Your task to perform on an android device: turn off smart reply in the gmail app Image 0: 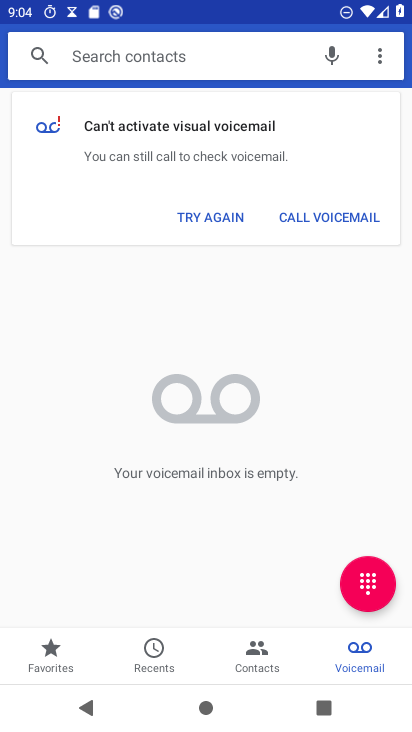
Step 0: press home button
Your task to perform on an android device: turn off smart reply in the gmail app Image 1: 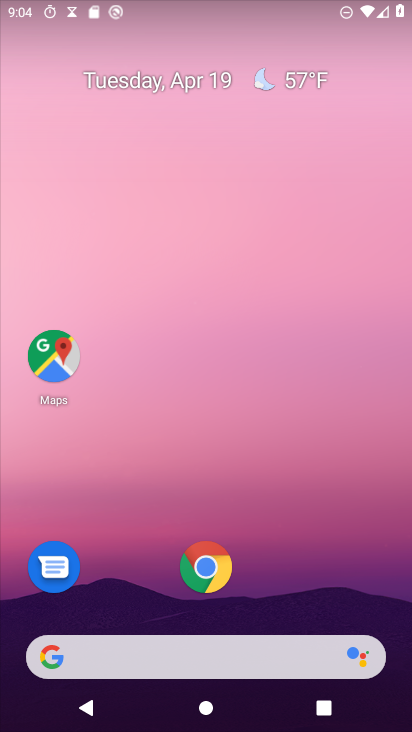
Step 1: drag from (339, 300) to (408, 19)
Your task to perform on an android device: turn off smart reply in the gmail app Image 2: 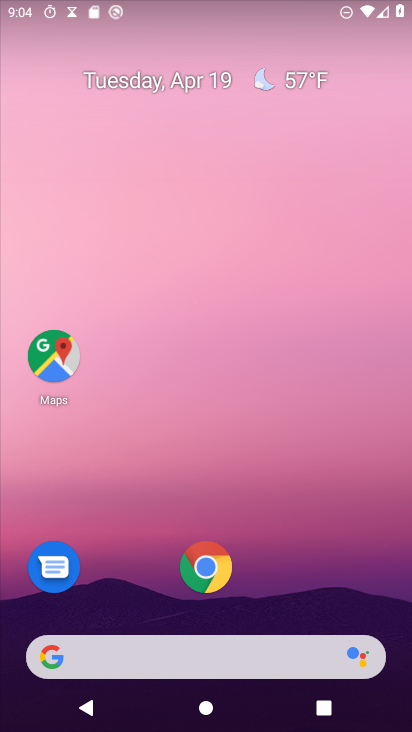
Step 2: drag from (401, 486) to (342, 24)
Your task to perform on an android device: turn off smart reply in the gmail app Image 3: 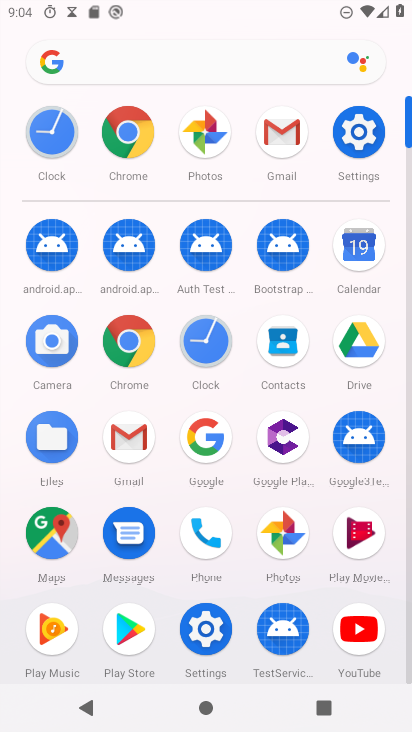
Step 3: click (271, 147)
Your task to perform on an android device: turn off smart reply in the gmail app Image 4: 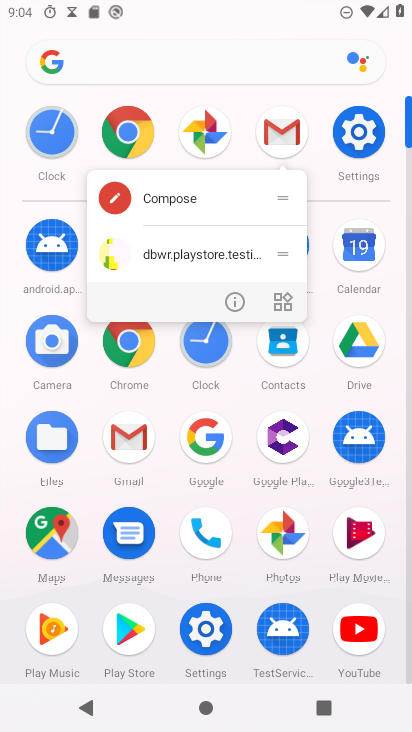
Step 4: click (271, 144)
Your task to perform on an android device: turn off smart reply in the gmail app Image 5: 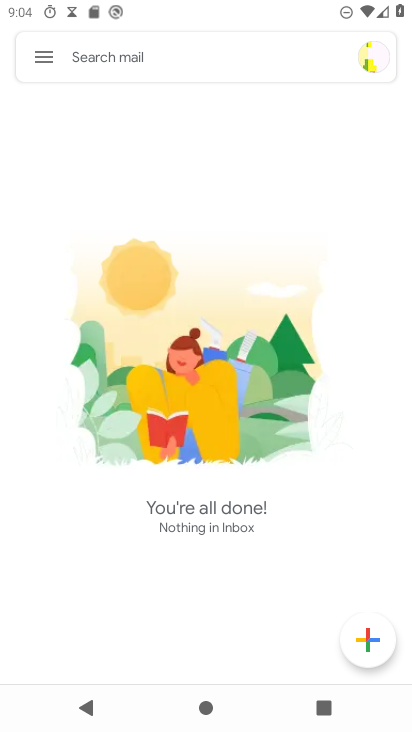
Step 5: click (39, 55)
Your task to perform on an android device: turn off smart reply in the gmail app Image 6: 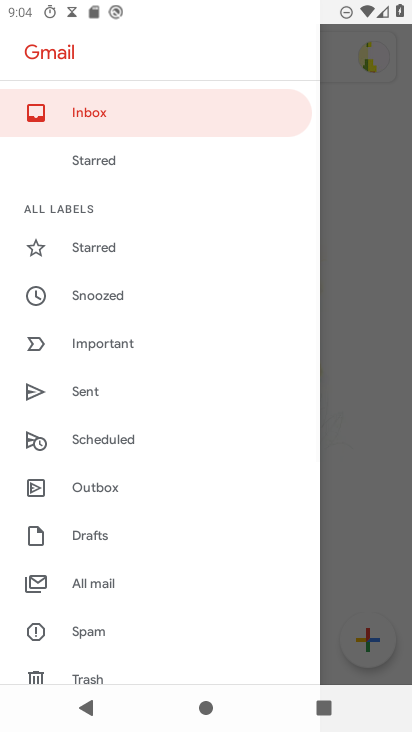
Step 6: drag from (100, 639) to (148, 230)
Your task to perform on an android device: turn off smart reply in the gmail app Image 7: 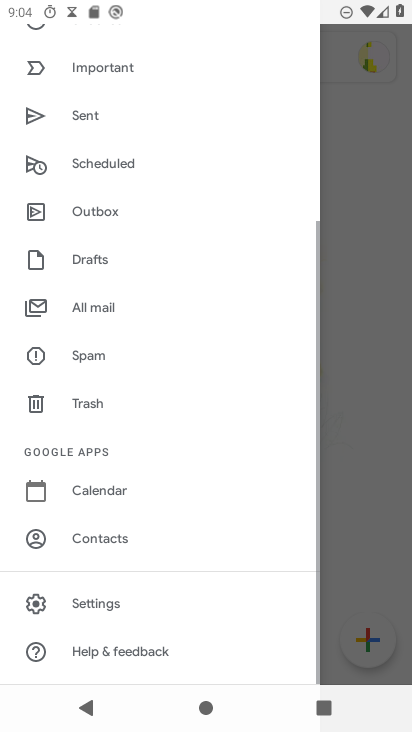
Step 7: click (122, 615)
Your task to perform on an android device: turn off smart reply in the gmail app Image 8: 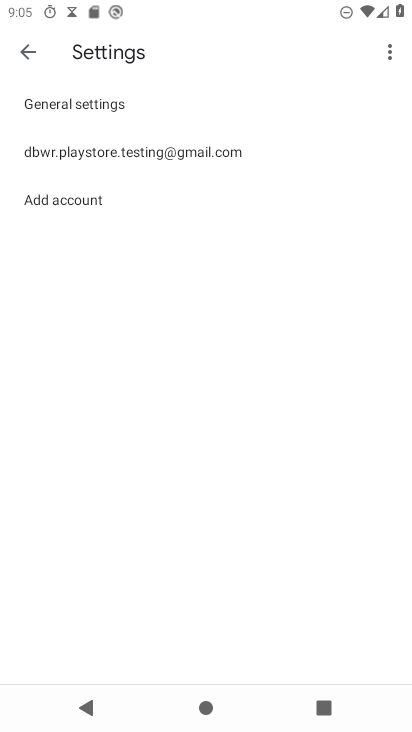
Step 8: click (101, 154)
Your task to perform on an android device: turn off smart reply in the gmail app Image 9: 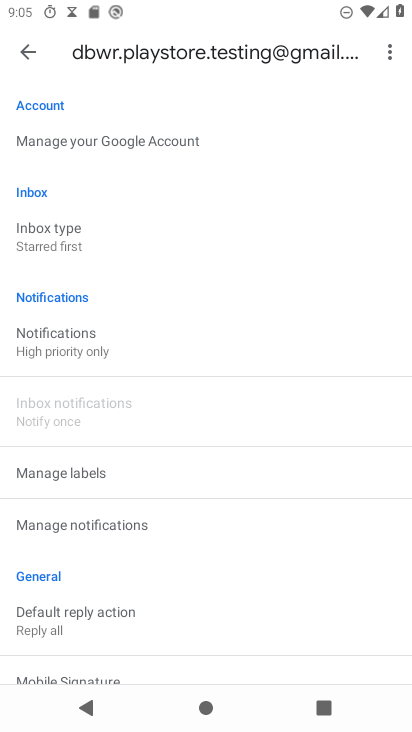
Step 9: task complete